Your task to perform on an android device: turn off notifications in google photos Image 0: 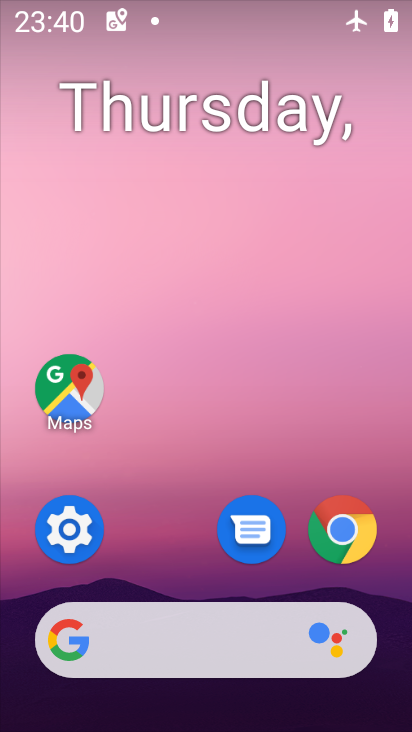
Step 0: drag from (236, 697) to (159, 1)
Your task to perform on an android device: turn off notifications in google photos Image 1: 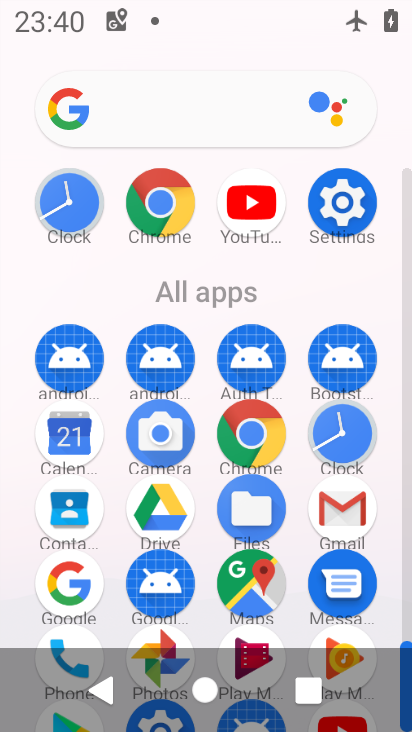
Step 1: click (178, 639)
Your task to perform on an android device: turn off notifications in google photos Image 2: 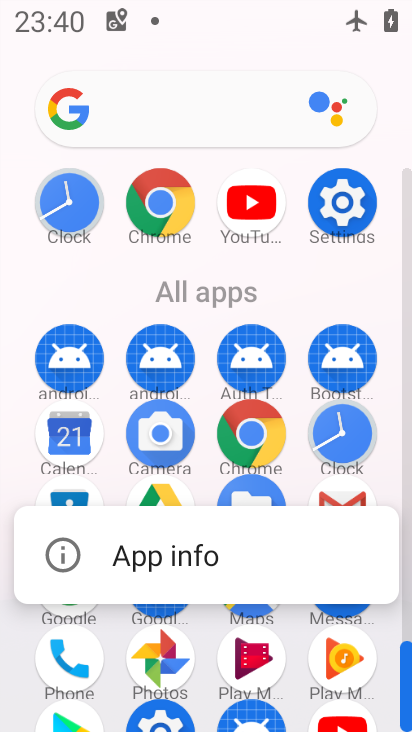
Step 2: click (45, 543)
Your task to perform on an android device: turn off notifications in google photos Image 3: 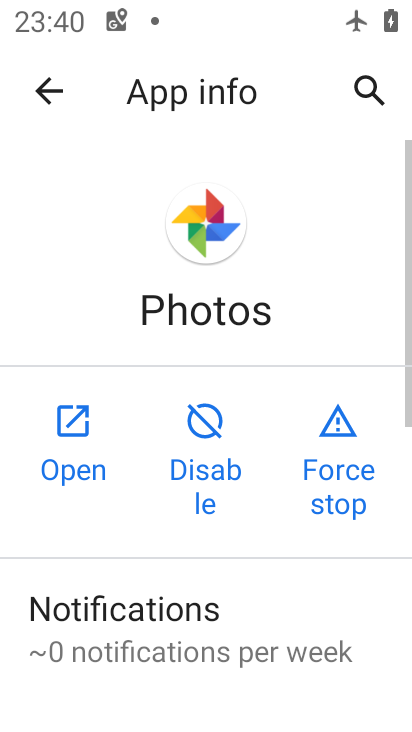
Step 3: click (131, 633)
Your task to perform on an android device: turn off notifications in google photos Image 4: 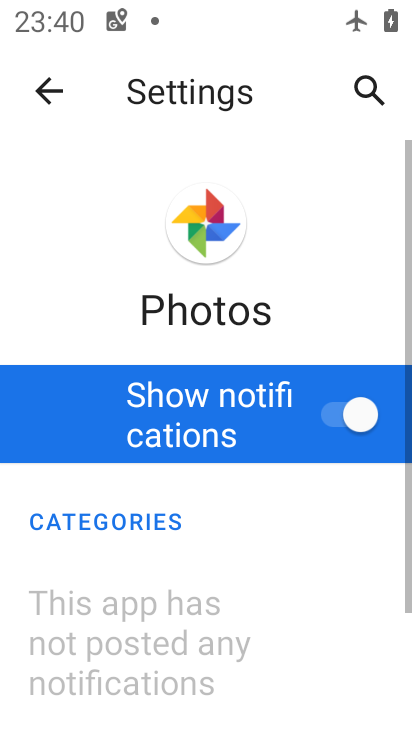
Step 4: click (364, 409)
Your task to perform on an android device: turn off notifications in google photos Image 5: 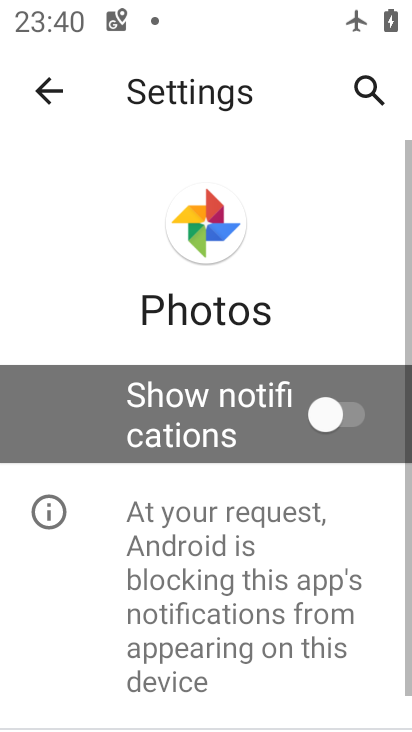
Step 5: task complete